Your task to perform on an android device: Open the phone app and click the voicemail tab. Image 0: 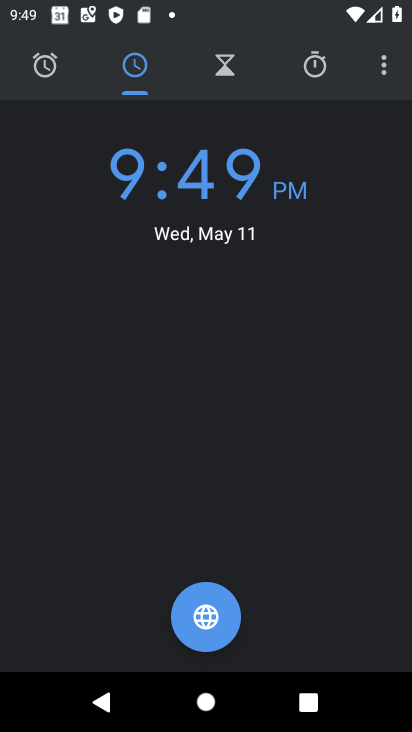
Step 0: press home button
Your task to perform on an android device: Open the phone app and click the voicemail tab. Image 1: 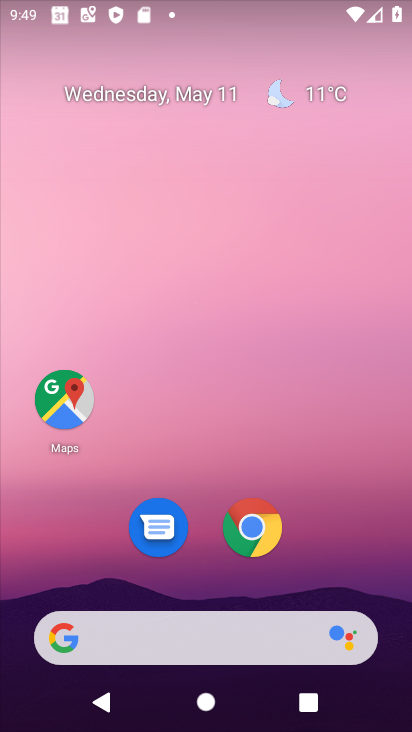
Step 1: drag from (352, 582) to (326, 41)
Your task to perform on an android device: Open the phone app and click the voicemail tab. Image 2: 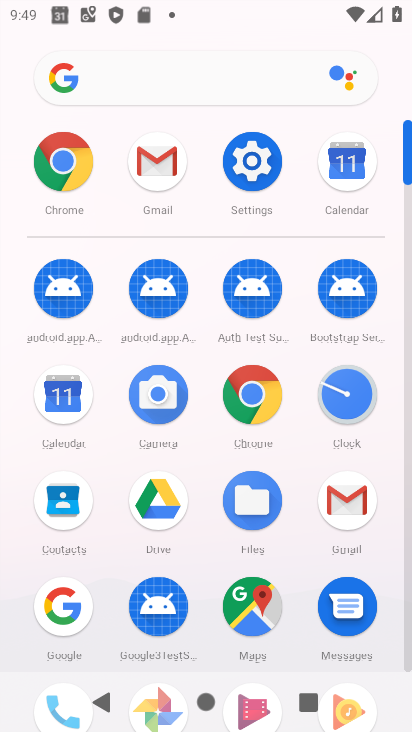
Step 2: drag from (395, 579) to (405, 196)
Your task to perform on an android device: Open the phone app and click the voicemail tab. Image 3: 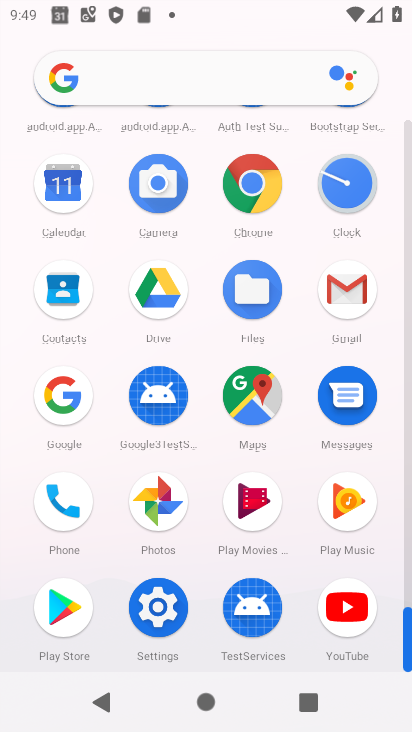
Step 3: click (56, 498)
Your task to perform on an android device: Open the phone app and click the voicemail tab. Image 4: 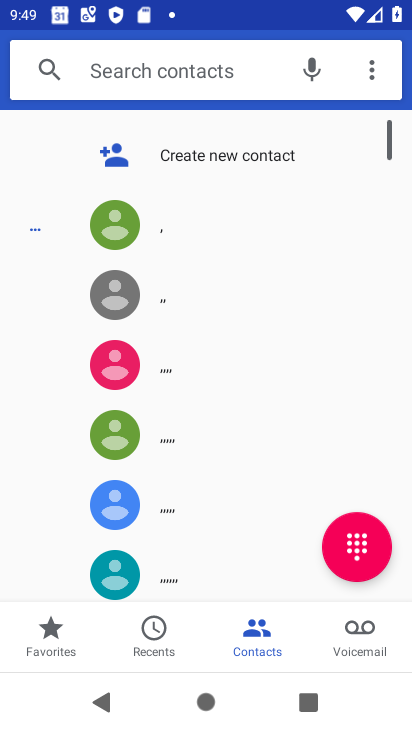
Step 4: click (363, 645)
Your task to perform on an android device: Open the phone app and click the voicemail tab. Image 5: 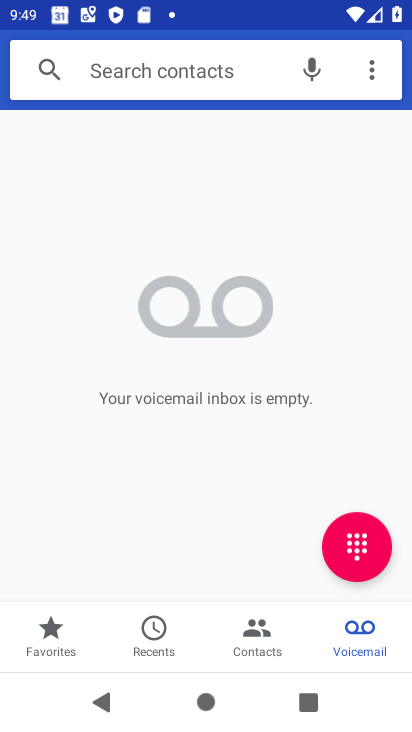
Step 5: task complete